Your task to perform on an android device: see tabs open on other devices in the chrome app Image 0: 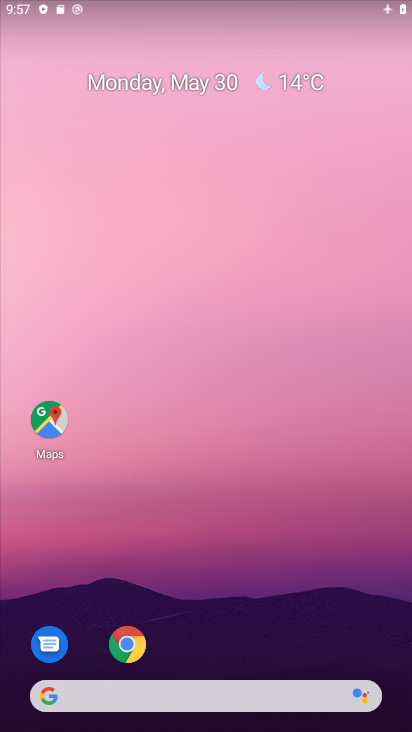
Step 0: click (125, 643)
Your task to perform on an android device: see tabs open on other devices in the chrome app Image 1: 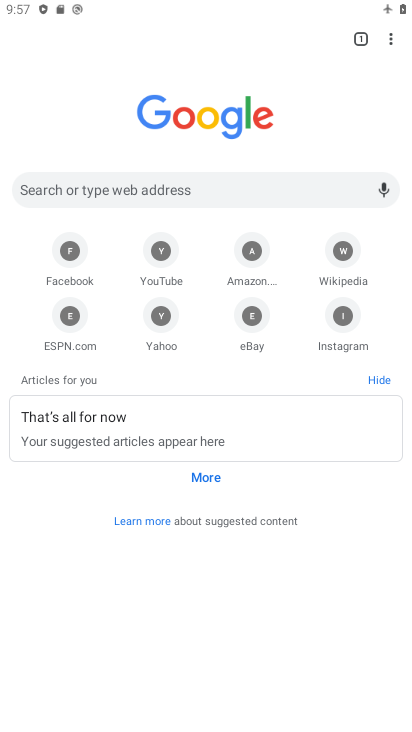
Step 1: click (392, 35)
Your task to perform on an android device: see tabs open on other devices in the chrome app Image 2: 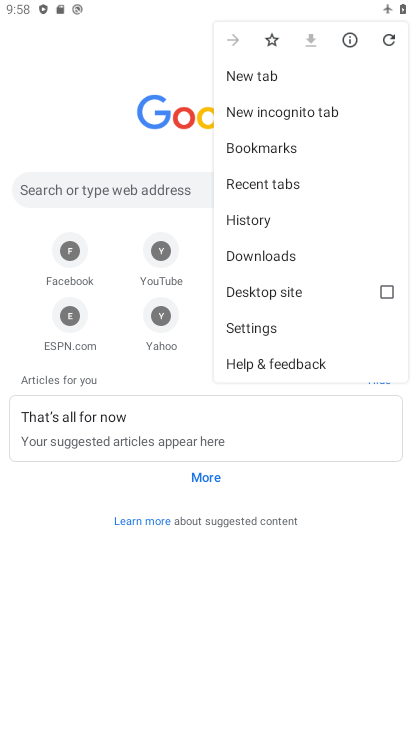
Step 2: click (147, 80)
Your task to perform on an android device: see tabs open on other devices in the chrome app Image 3: 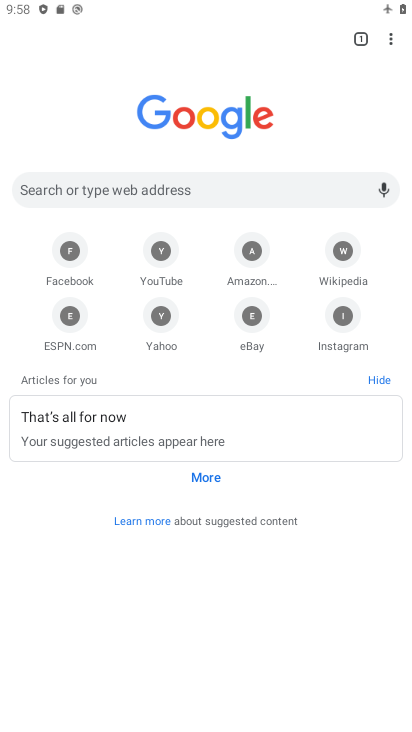
Step 3: click (354, 37)
Your task to perform on an android device: see tabs open on other devices in the chrome app Image 4: 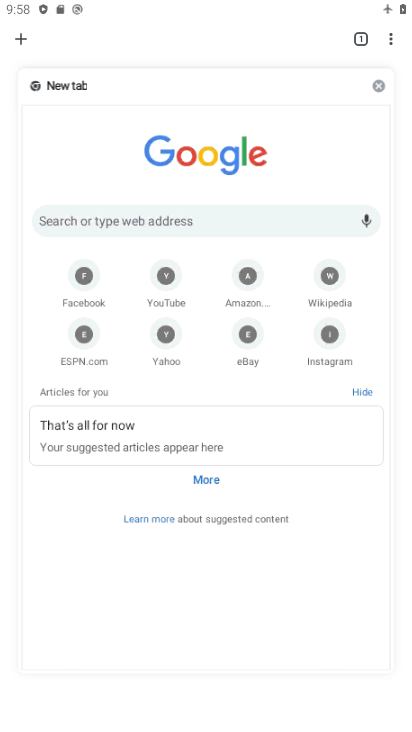
Step 4: task complete